Your task to perform on an android device: turn off smart reply in the gmail app Image 0: 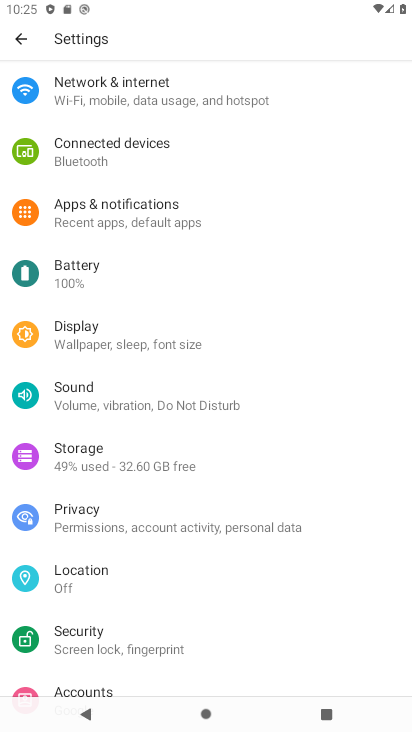
Step 0: press home button
Your task to perform on an android device: turn off smart reply in the gmail app Image 1: 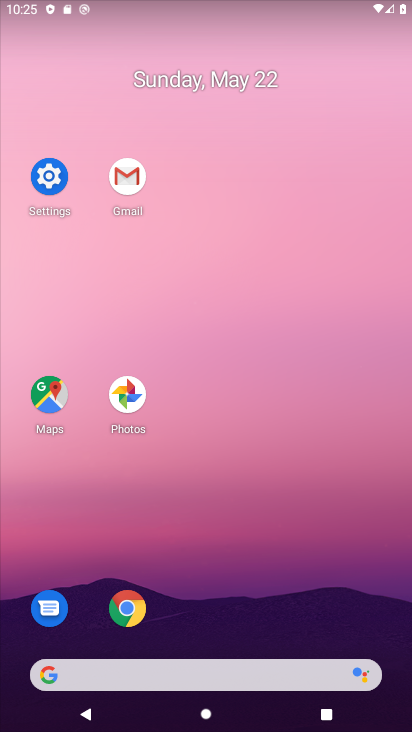
Step 1: click (123, 188)
Your task to perform on an android device: turn off smart reply in the gmail app Image 2: 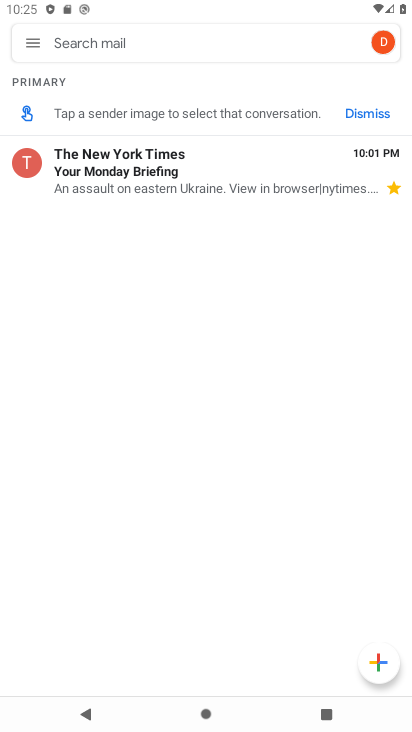
Step 2: click (41, 39)
Your task to perform on an android device: turn off smart reply in the gmail app Image 3: 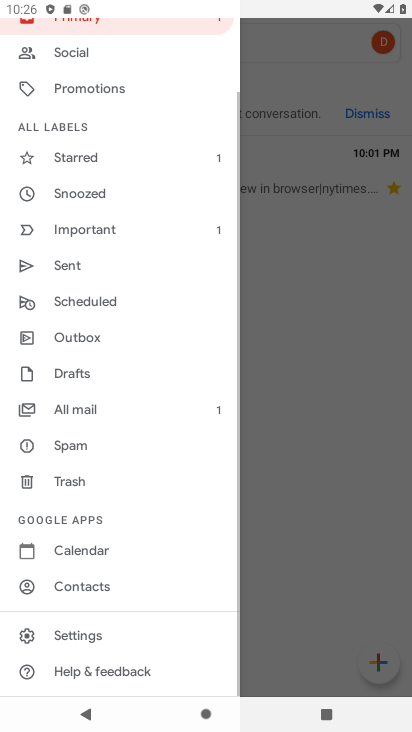
Step 3: click (159, 632)
Your task to perform on an android device: turn off smart reply in the gmail app Image 4: 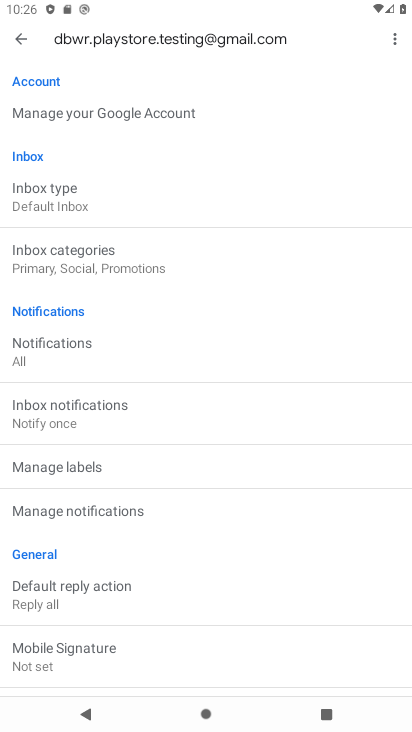
Step 4: drag from (173, 537) to (192, 102)
Your task to perform on an android device: turn off smart reply in the gmail app Image 5: 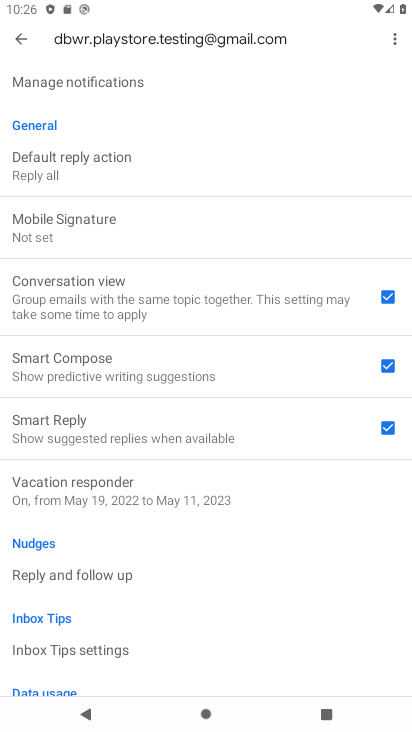
Step 5: click (382, 429)
Your task to perform on an android device: turn off smart reply in the gmail app Image 6: 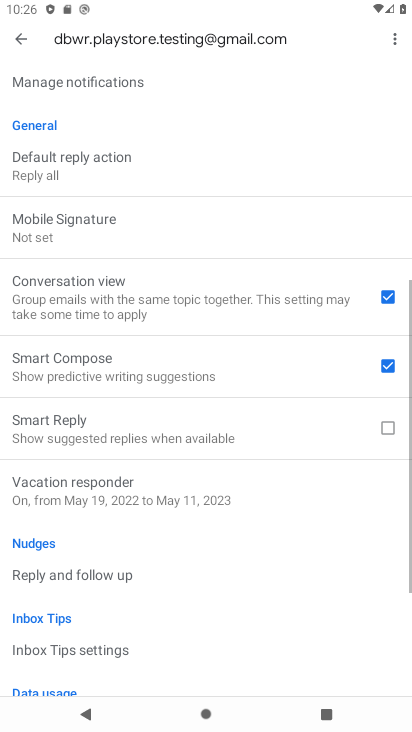
Step 6: task complete